Your task to perform on an android device: Go to sound settings Image 0: 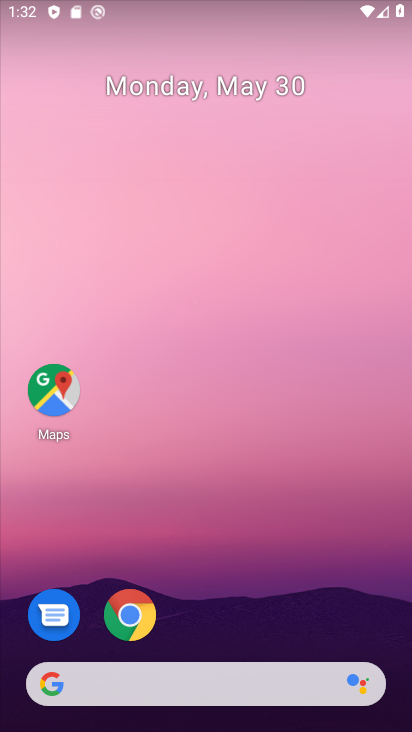
Step 0: drag from (326, 604) to (285, 18)
Your task to perform on an android device: Go to sound settings Image 1: 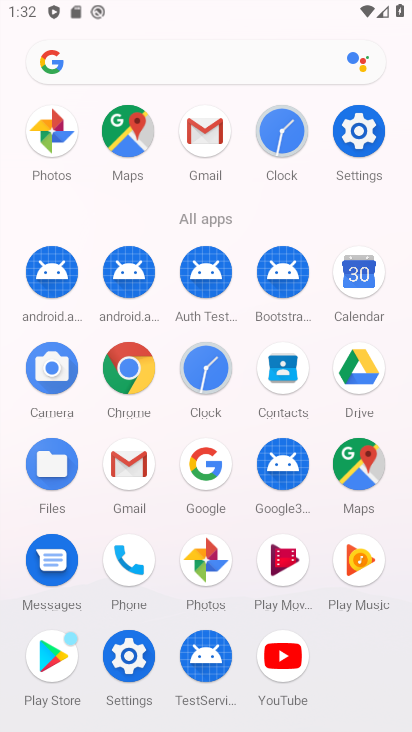
Step 1: click (352, 137)
Your task to perform on an android device: Go to sound settings Image 2: 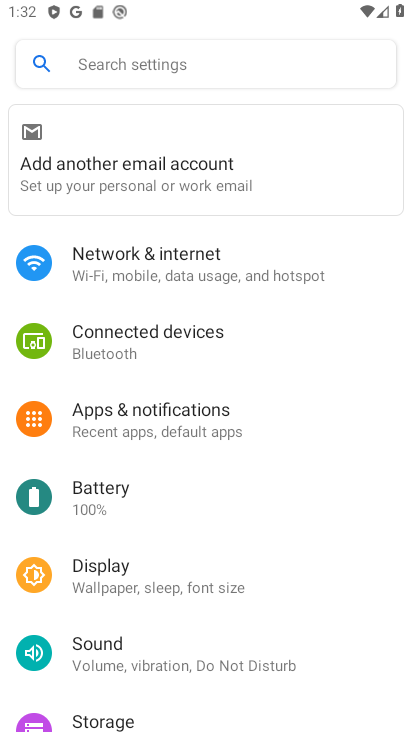
Step 2: click (108, 642)
Your task to perform on an android device: Go to sound settings Image 3: 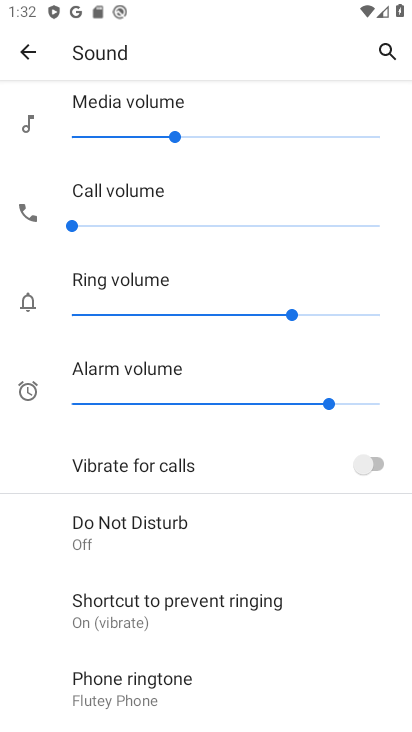
Step 3: task complete